Your task to perform on an android device: delete the emails in spam in the gmail app Image 0: 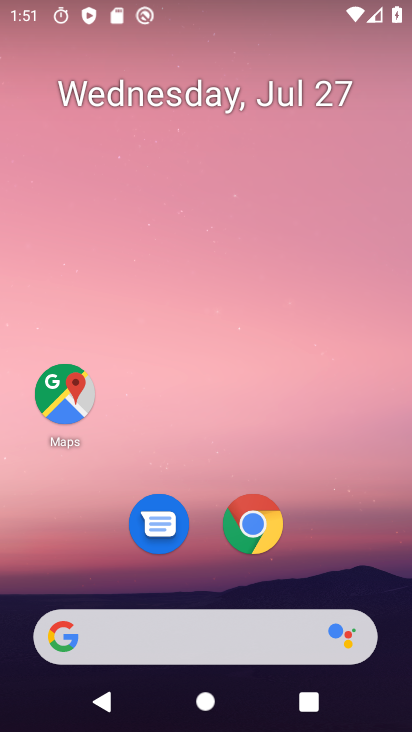
Step 0: drag from (324, 540) to (308, 75)
Your task to perform on an android device: delete the emails in spam in the gmail app Image 1: 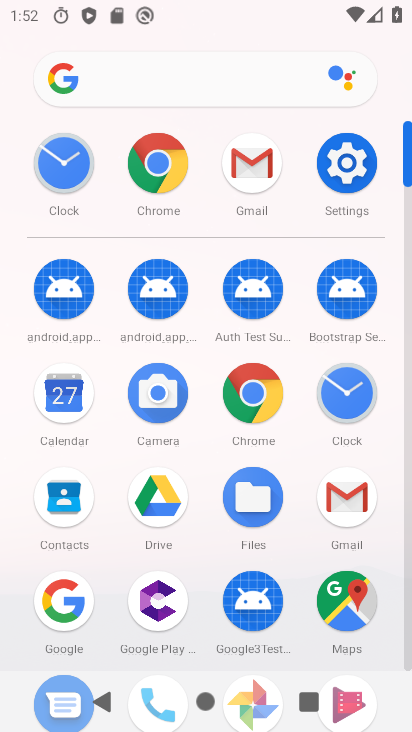
Step 1: click (256, 165)
Your task to perform on an android device: delete the emails in spam in the gmail app Image 2: 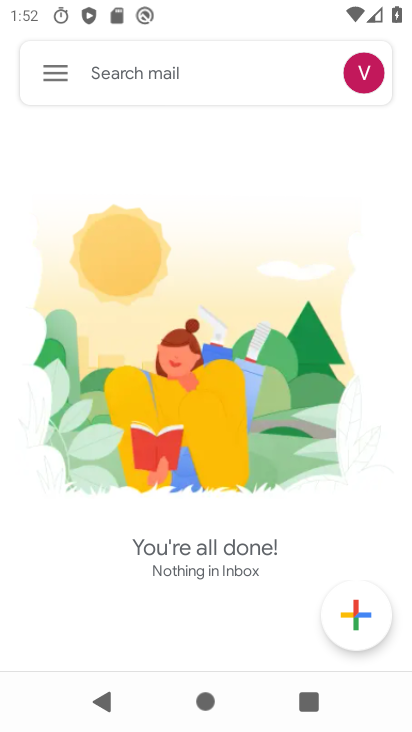
Step 2: click (64, 73)
Your task to perform on an android device: delete the emails in spam in the gmail app Image 3: 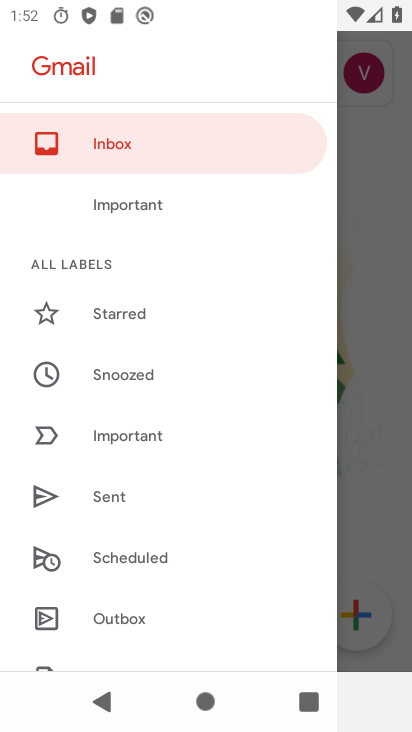
Step 3: drag from (182, 453) to (230, 96)
Your task to perform on an android device: delete the emails in spam in the gmail app Image 4: 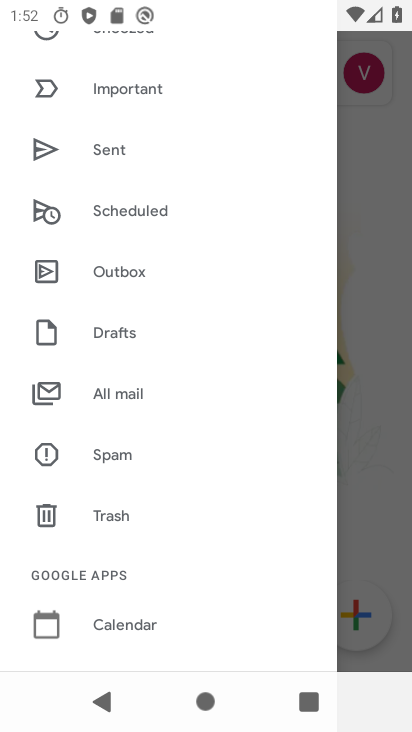
Step 4: click (121, 456)
Your task to perform on an android device: delete the emails in spam in the gmail app Image 5: 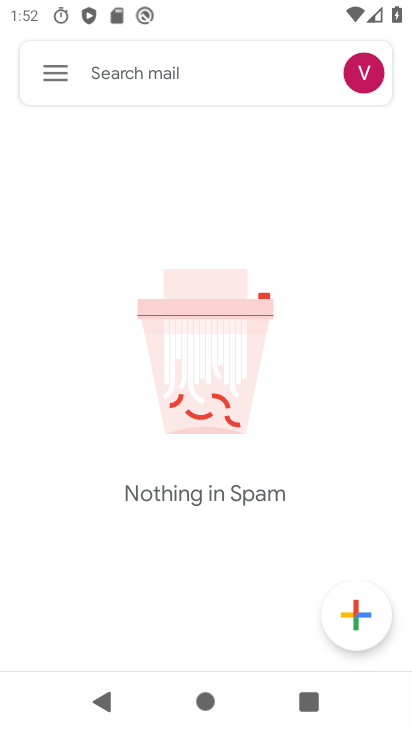
Step 5: task complete